Your task to perform on an android device: Search for Mexican restaurants on Maps Image 0: 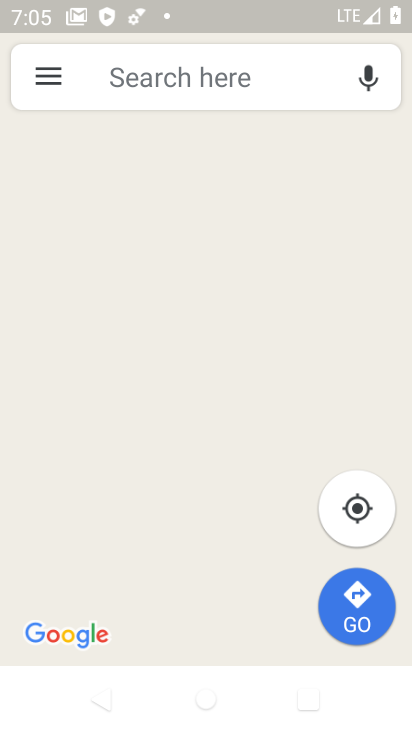
Step 0: drag from (324, 535) to (360, 484)
Your task to perform on an android device: Search for Mexican restaurants on Maps Image 1: 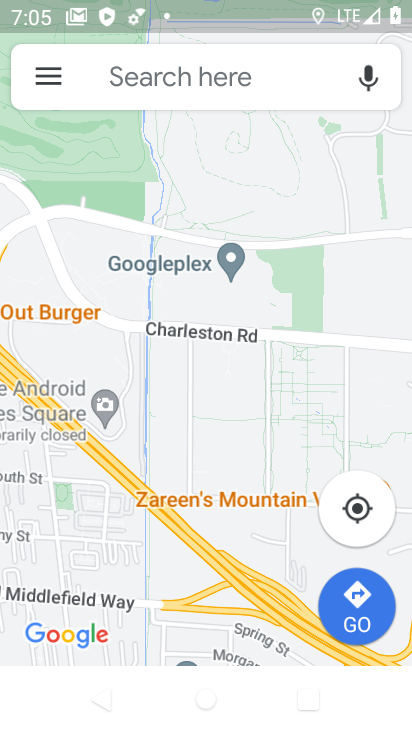
Step 1: click (200, 71)
Your task to perform on an android device: Search for Mexican restaurants on Maps Image 2: 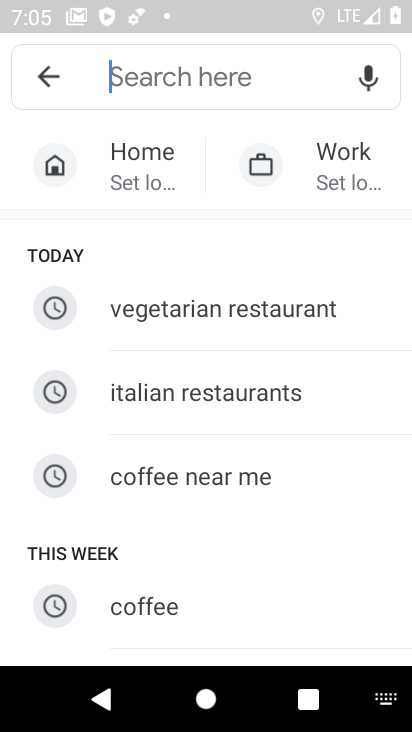
Step 2: drag from (164, 549) to (241, 136)
Your task to perform on an android device: Search for Mexican restaurants on Maps Image 3: 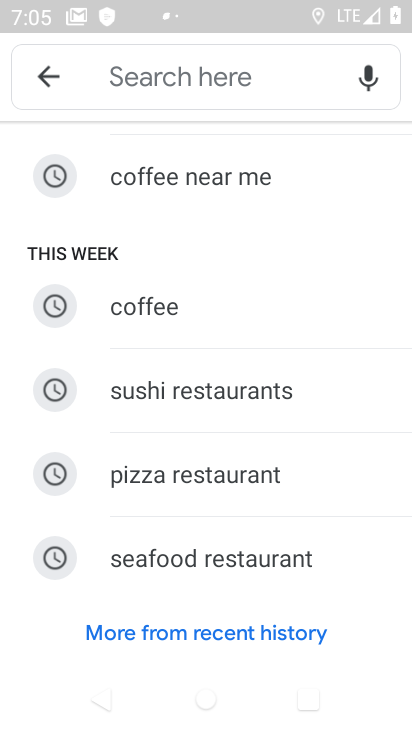
Step 3: type "mexican resturents"
Your task to perform on an android device: Search for Mexican restaurants on Maps Image 4: 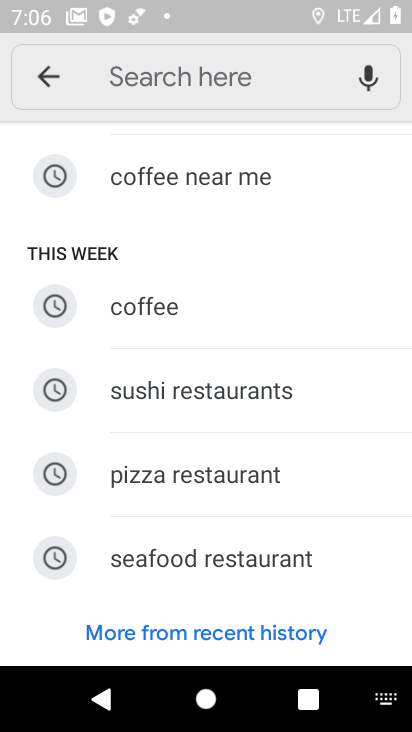
Step 4: drag from (308, 423) to (290, 548)
Your task to perform on an android device: Search for Mexican restaurants on Maps Image 5: 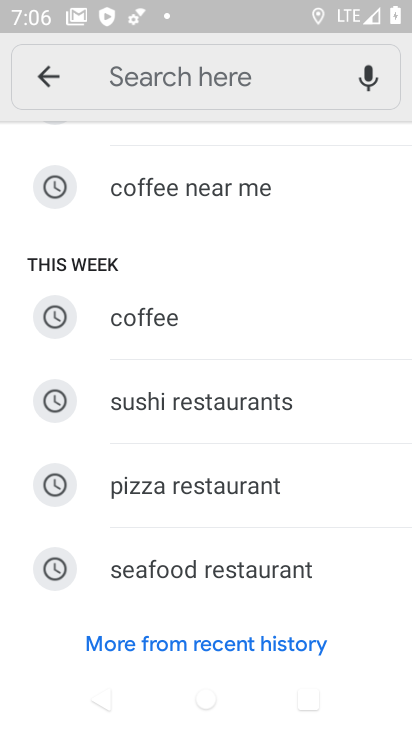
Step 5: drag from (230, 278) to (220, 589)
Your task to perform on an android device: Search for Mexican restaurants on Maps Image 6: 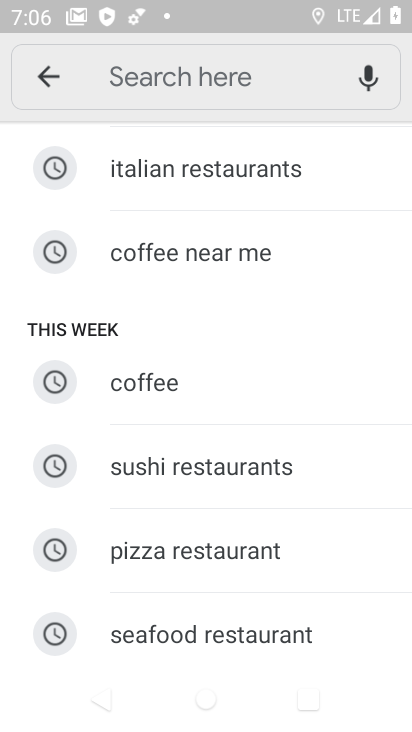
Step 6: drag from (282, 195) to (288, 573)
Your task to perform on an android device: Search for Mexican restaurants on Maps Image 7: 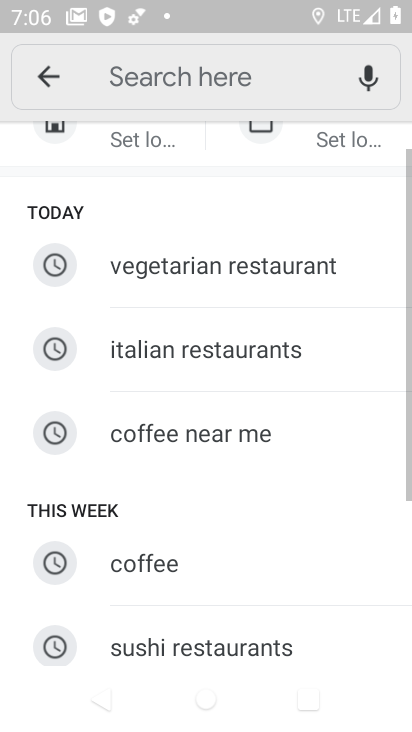
Step 7: drag from (303, 187) to (299, 607)
Your task to perform on an android device: Search for Mexican restaurants on Maps Image 8: 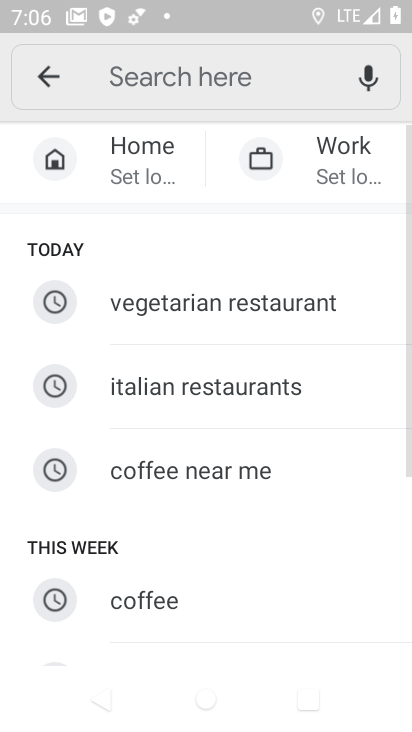
Step 8: drag from (287, 367) to (268, 609)
Your task to perform on an android device: Search for Mexican restaurants on Maps Image 9: 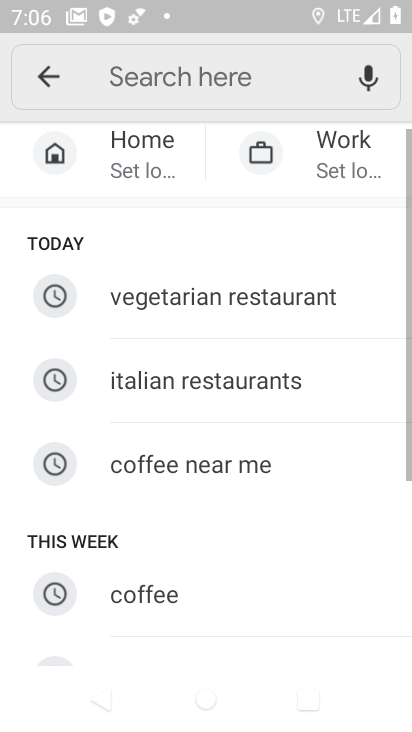
Step 9: click (161, 83)
Your task to perform on an android device: Search for Mexican restaurants on Maps Image 10: 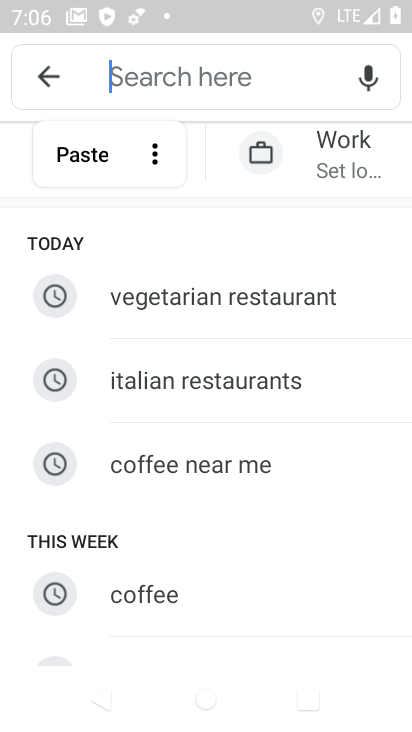
Step 10: type "mexican resturents"
Your task to perform on an android device: Search for Mexican restaurants on Maps Image 11: 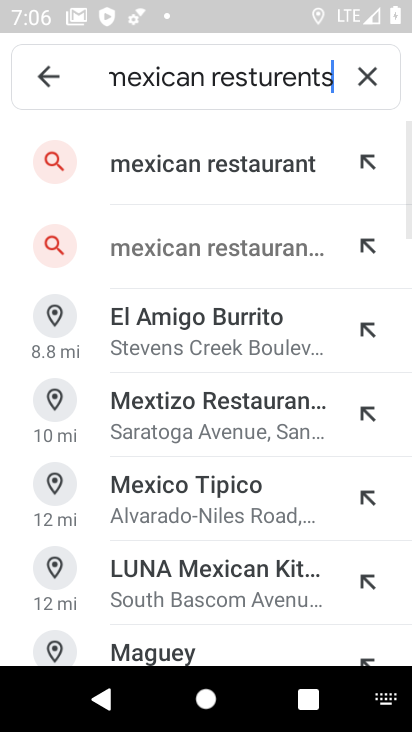
Step 11: click (269, 163)
Your task to perform on an android device: Search for Mexican restaurants on Maps Image 12: 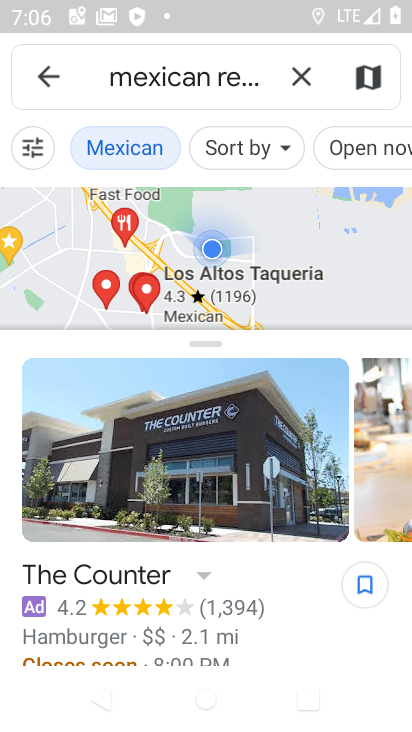
Step 12: task complete